Your task to perform on an android device: Search for bose soundlink mini on costco.com, select the first entry, and add it to the cart. Image 0: 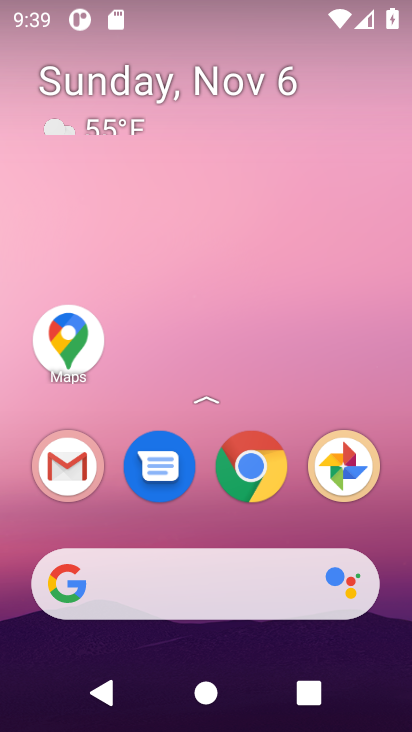
Step 0: click (243, 487)
Your task to perform on an android device: Search for bose soundlink mini on costco.com, select the first entry, and add it to the cart. Image 1: 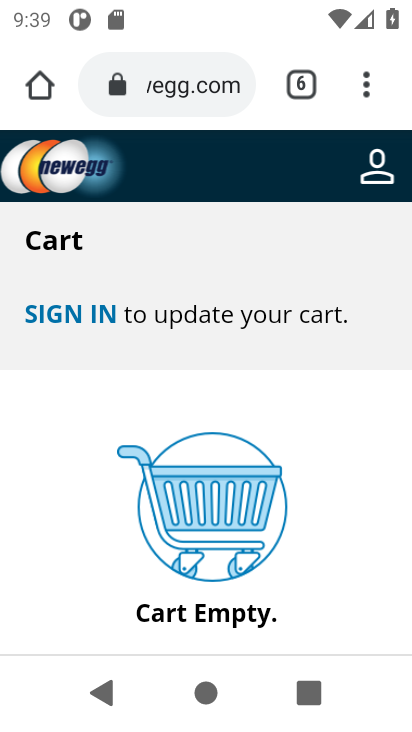
Step 1: click (297, 73)
Your task to perform on an android device: Search for bose soundlink mini on costco.com, select the first entry, and add it to the cart. Image 2: 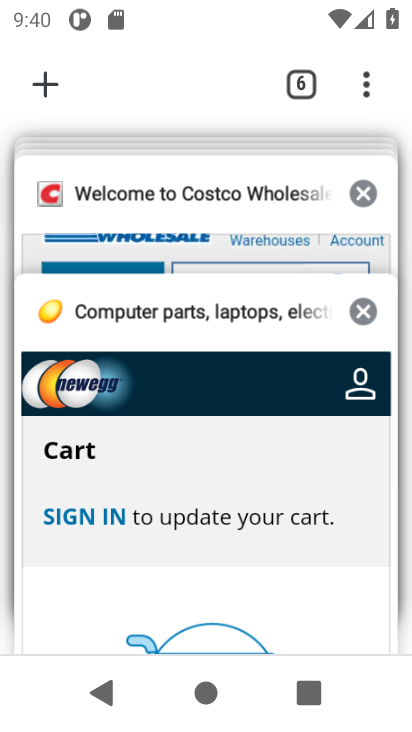
Step 2: click (46, 78)
Your task to perform on an android device: Search for bose soundlink mini on costco.com, select the first entry, and add it to the cart. Image 3: 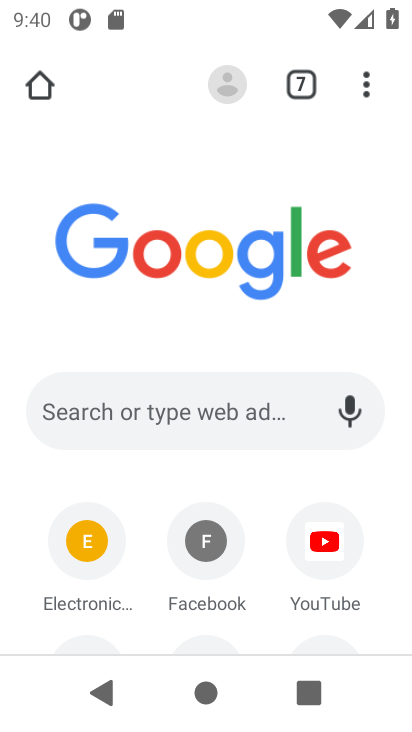
Step 3: click (113, 416)
Your task to perform on an android device: Search for bose soundlink mini on costco.com, select the first entry, and add it to the cart. Image 4: 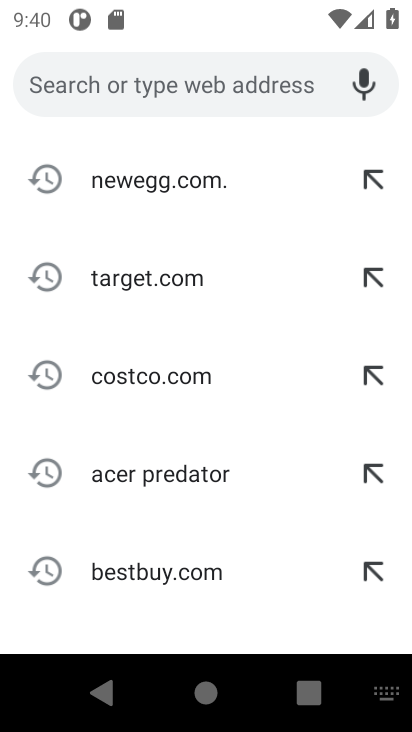
Step 4: click (143, 380)
Your task to perform on an android device: Search for bose soundlink mini on costco.com, select the first entry, and add it to the cart. Image 5: 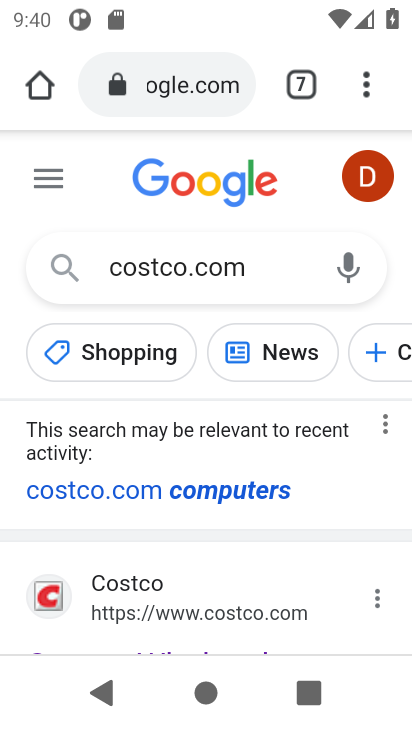
Step 5: drag from (133, 584) to (209, 243)
Your task to perform on an android device: Search for bose soundlink mini on costco.com, select the first entry, and add it to the cart. Image 6: 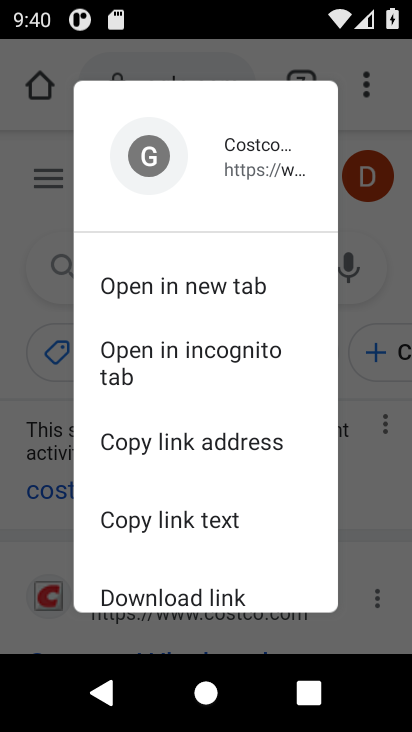
Step 6: click (384, 398)
Your task to perform on an android device: Search for bose soundlink mini on costco.com, select the first entry, and add it to the cart. Image 7: 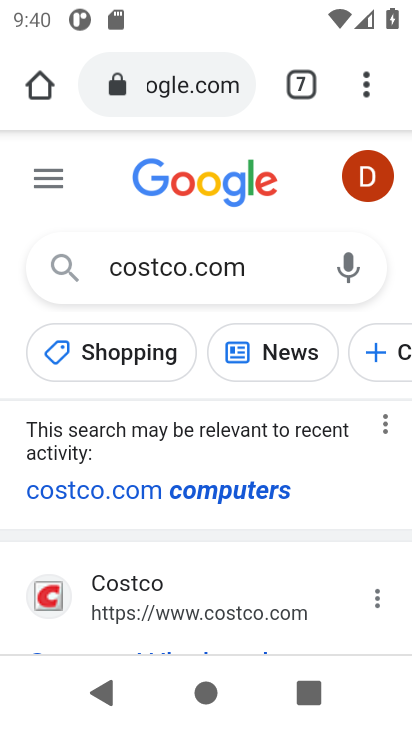
Step 7: click (126, 595)
Your task to perform on an android device: Search for bose soundlink mini on costco.com, select the first entry, and add it to the cart. Image 8: 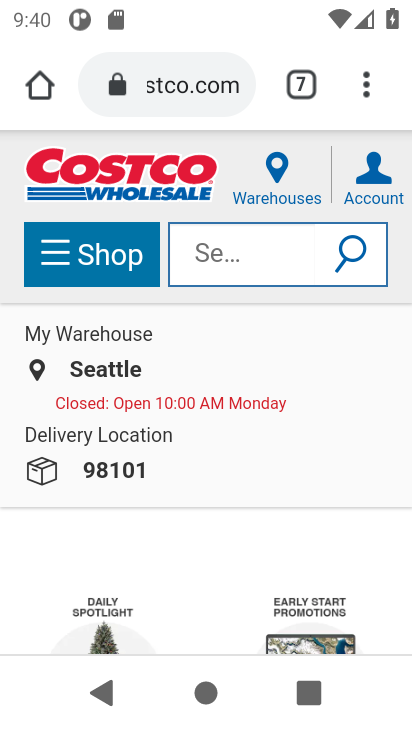
Step 8: task complete